Your task to perform on an android device: set default search engine in the chrome app Image 0: 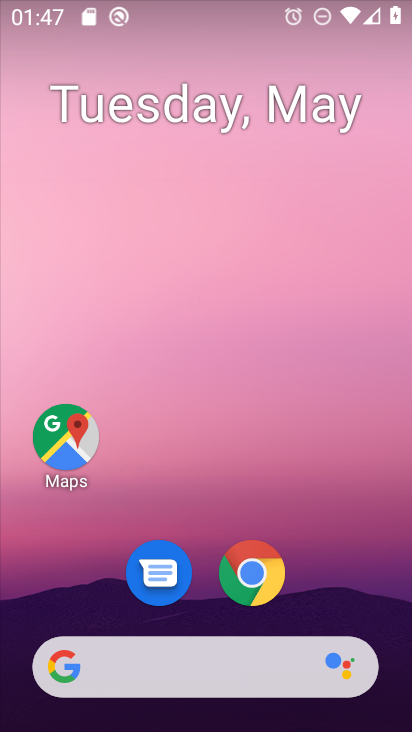
Step 0: click (229, 547)
Your task to perform on an android device: set default search engine in the chrome app Image 1: 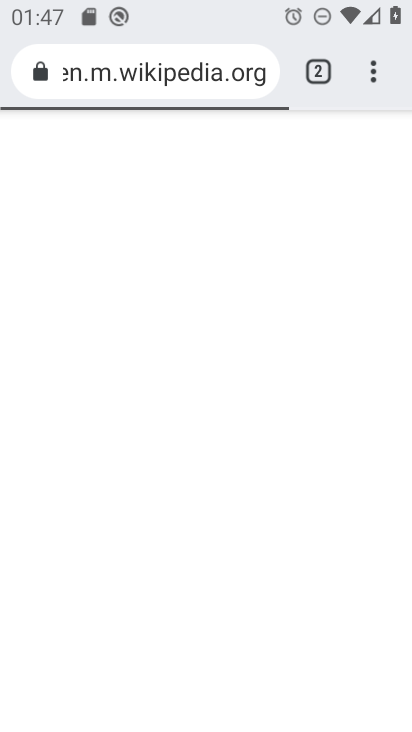
Step 1: click (374, 64)
Your task to perform on an android device: set default search engine in the chrome app Image 2: 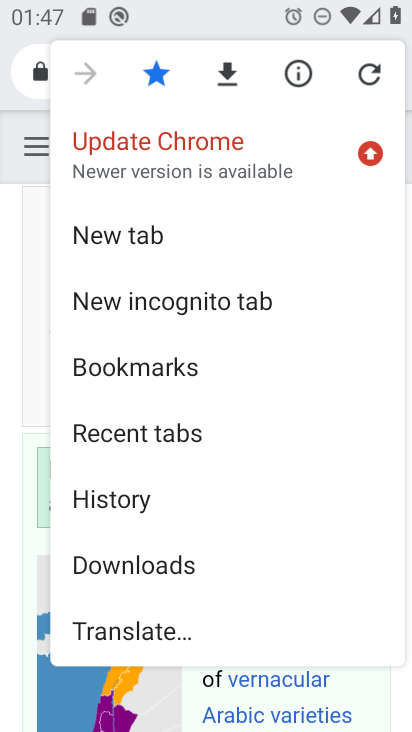
Step 2: drag from (217, 557) to (282, 96)
Your task to perform on an android device: set default search engine in the chrome app Image 3: 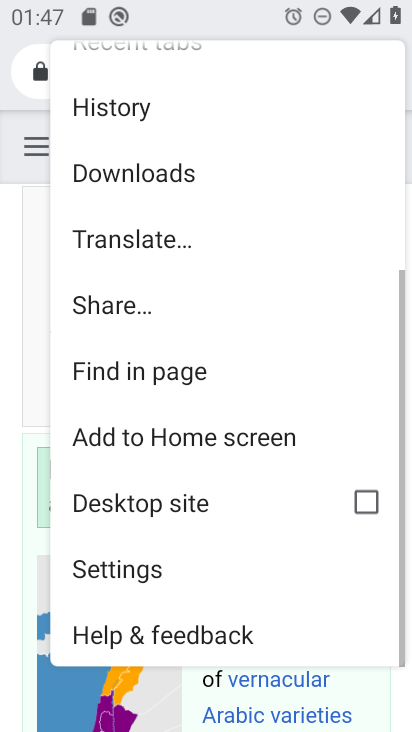
Step 3: click (147, 550)
Your task to perform on an android device: set default search engine in the chrome app Image 4: 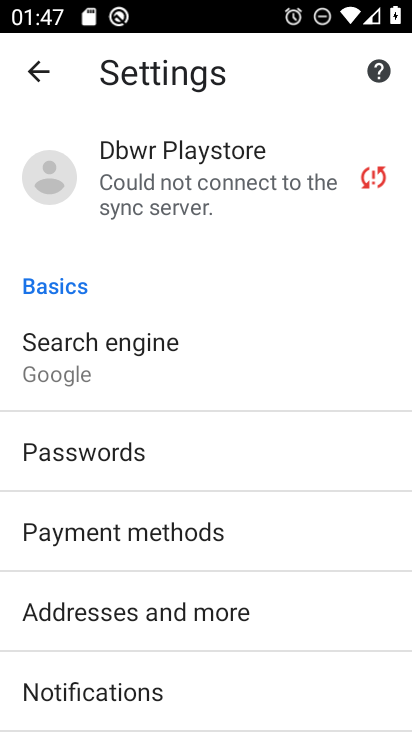
Step 4: drag from (322, 609) to (351, 166)
Your task to perform on an android device: set default search engine in the chrome app Image 5: 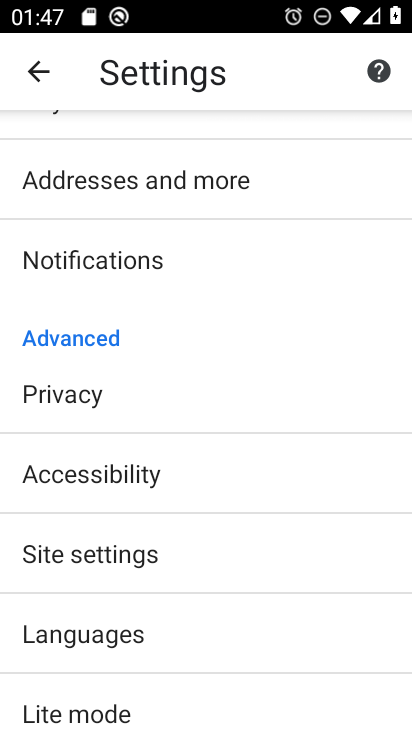
Step 5: drag from (364, 192) to (230, 731)
Your task to perform on an android device: set default search engine in the chrome app Image 6: 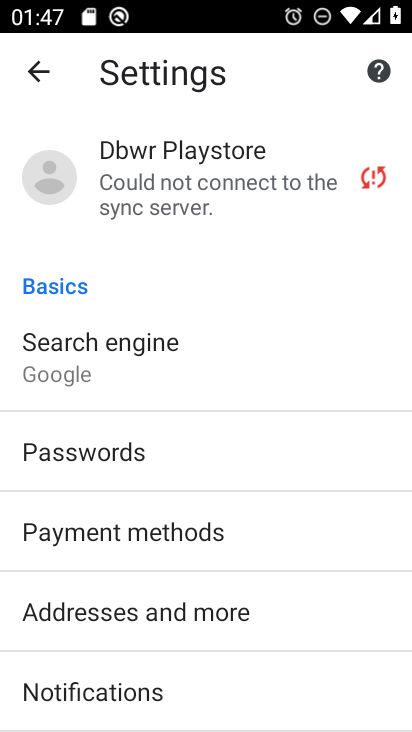
Step 6: click (211, 372)
Your task to perform on an android device: set default search engine in the chrome app Image 7: 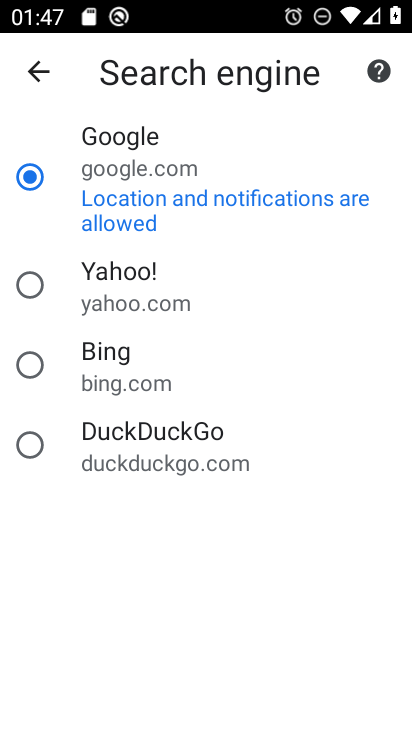
Step 7: task complete